Your task to perform on an android device: check out phone information Image 0: 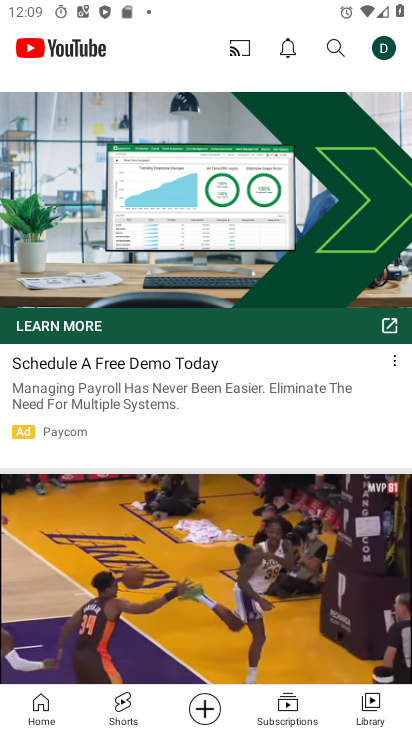
Step 0: press home button
Your task to perform on an android device: check out phone information Image 1: 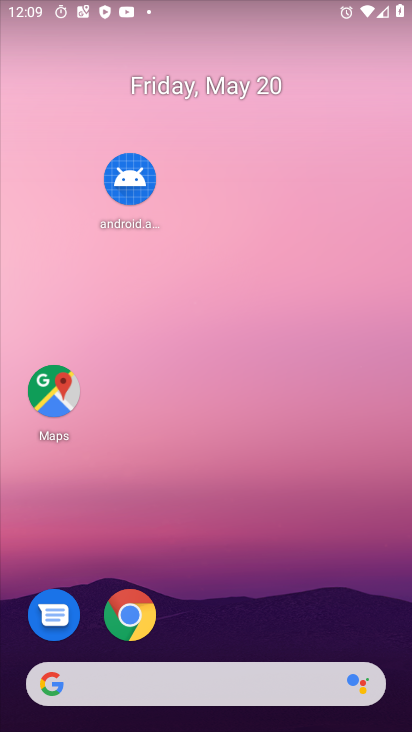
Step 1: drag from (337, 613) to (288, 155)
Your task to perform on an android device: check out phone information Image 2: 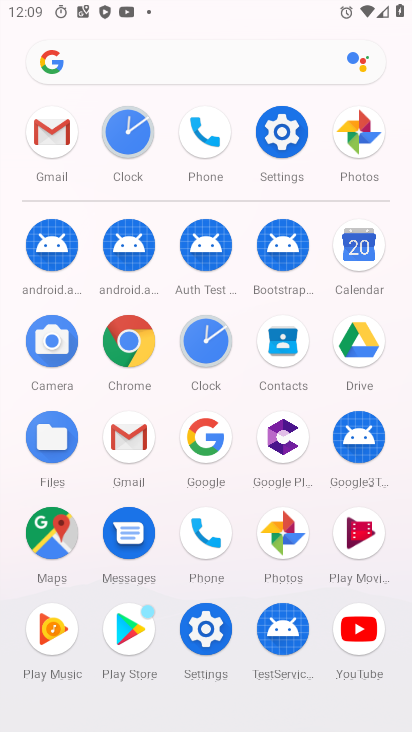
Step 2: click (215, 622)
Your task to perform on an android device: check out phone information Image 3: 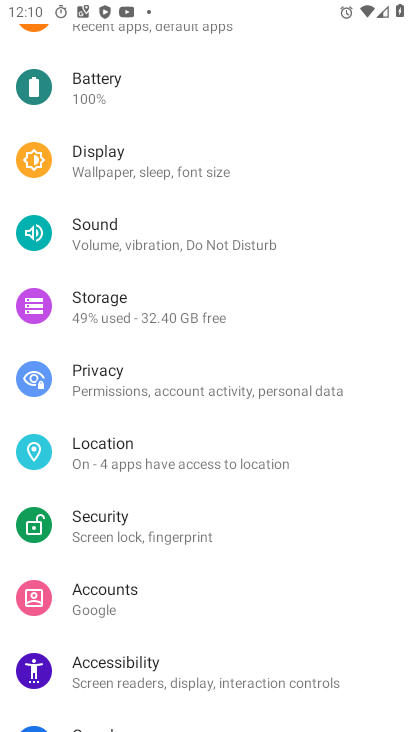
Step 3: drag from (254, 693) to (255, 312)
Your task to perform on an android device: check out phone information Image 4: 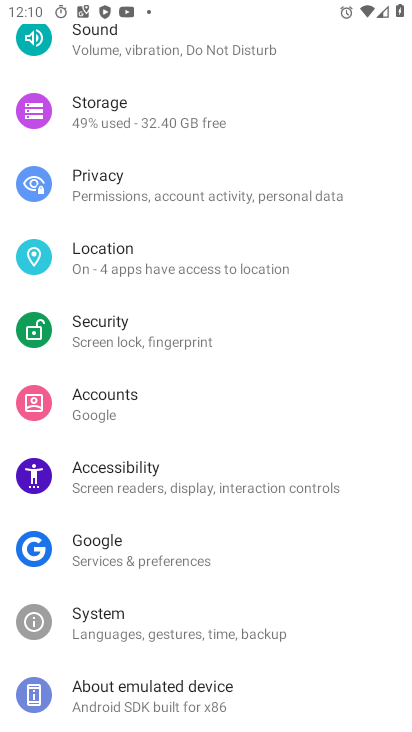
Step 4: click (203, 706)
Your task to perform on an android device: check out phone information Image 5: 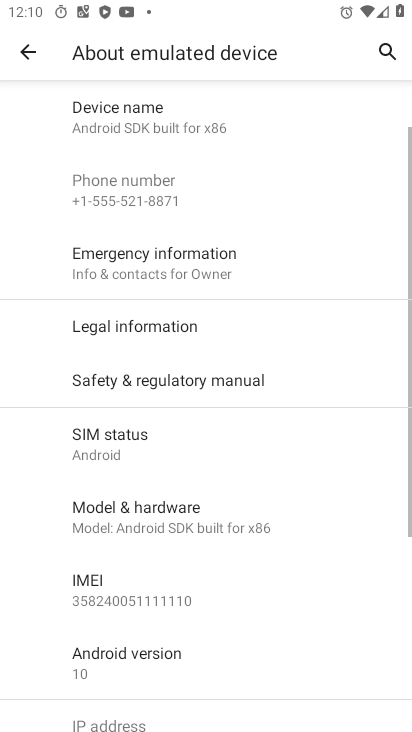
Step 5: task complete